Your task to perform on an android device: Go to Wikipedia Image 0: 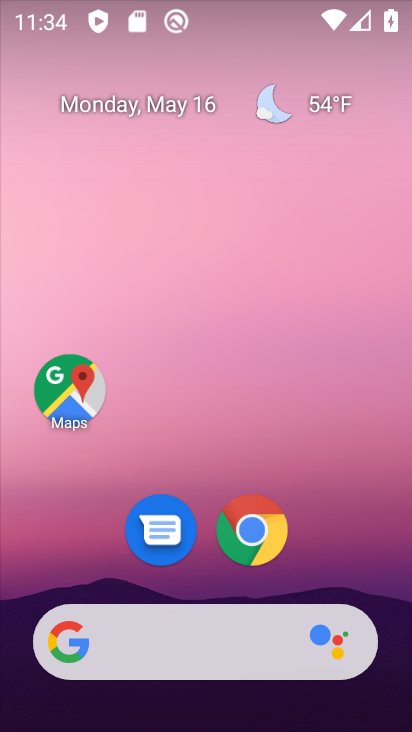
Step 0: drag from (359, 548) to (373, 131)
Your task to perform on an android device: Go to Wikipedia Image 1: 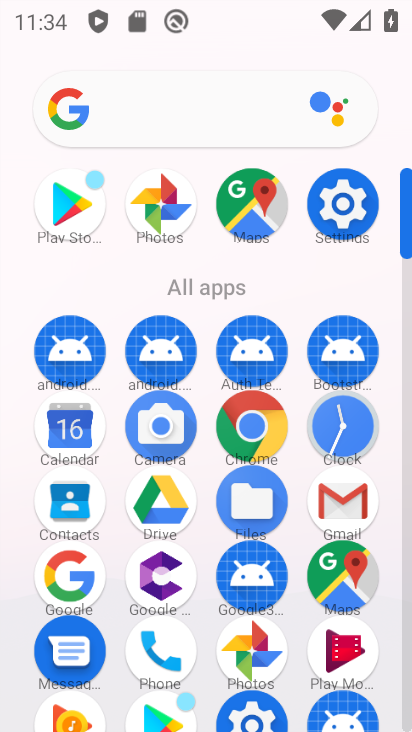
Step 1: click (278, 431)
Your task to perform on an android device: Go to Wikipedia Image 2: 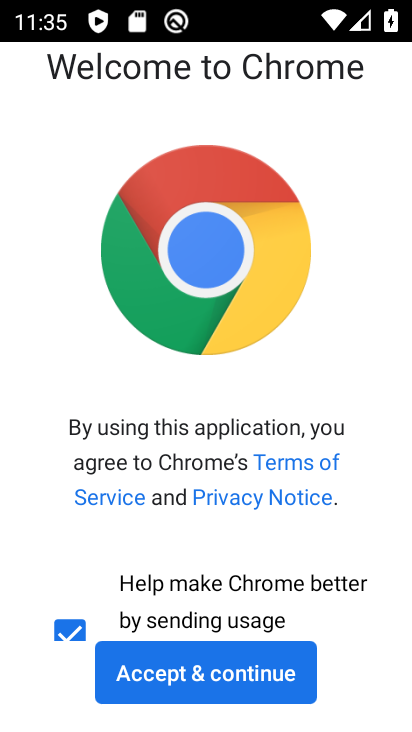
Step 2: click (269, 675)
Your task to perform on an android device: Go to Wikipedia Image 3: 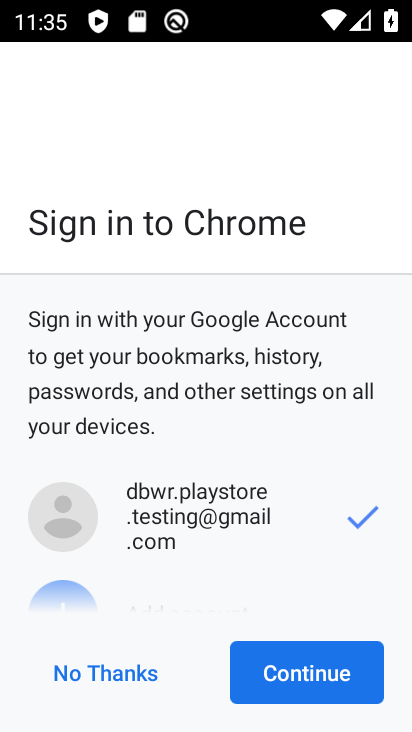
Step 3: click (267, 675)
Your task to perform on an android device: Go to Wikipedia Image 4: 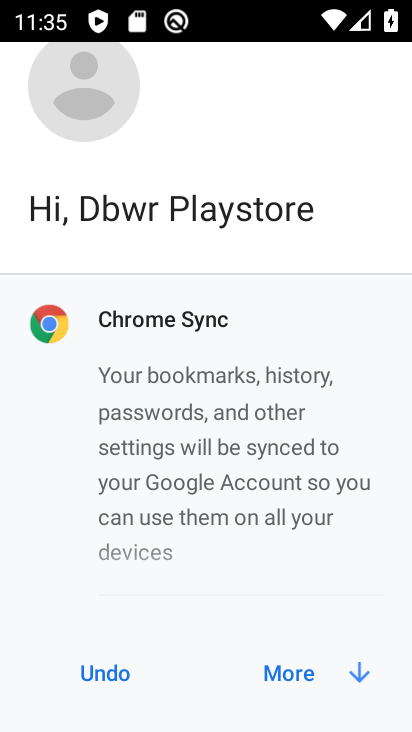
Step 4: click (267, 675)
Your task to perform on an android device: Go to Wikipedia Image 5: 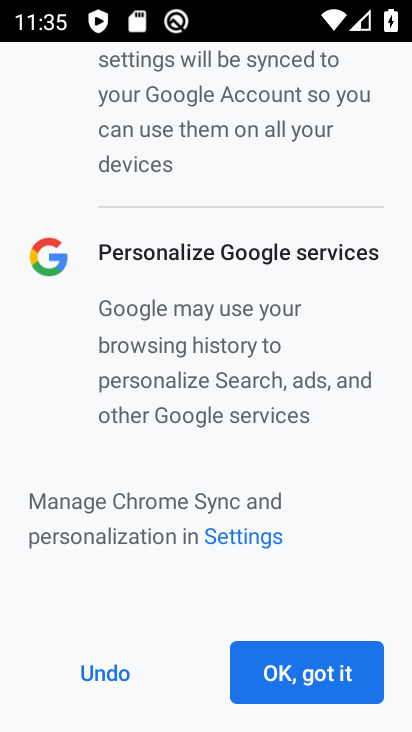
Step 5: click (264, 672)
Your task to perform on an android device: Go to Wikipedia Image 6: 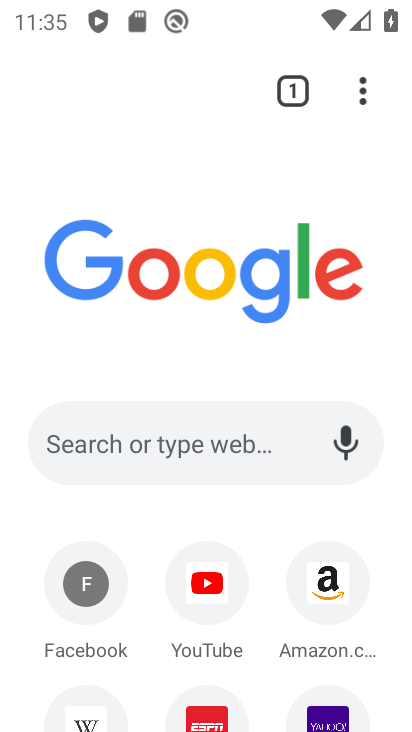
Step 6: drag from (154, 505) to (187, 328)
Your task to perform on an android device: Go to Wikipedia Image 7: 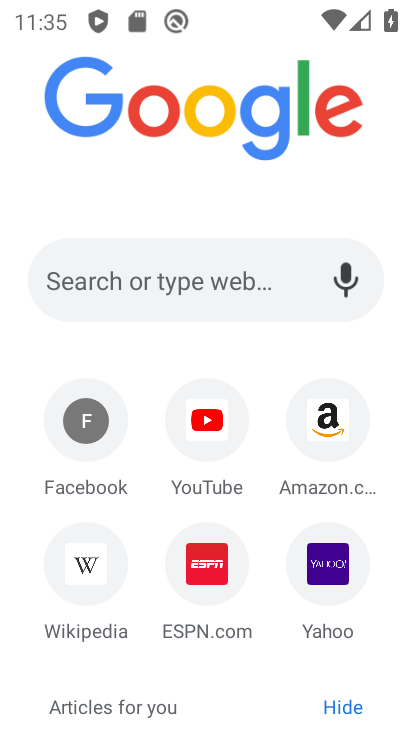
Step 7: click (91, 586)
Your task to perform on an android device: Go to Wikipedia Image 8: 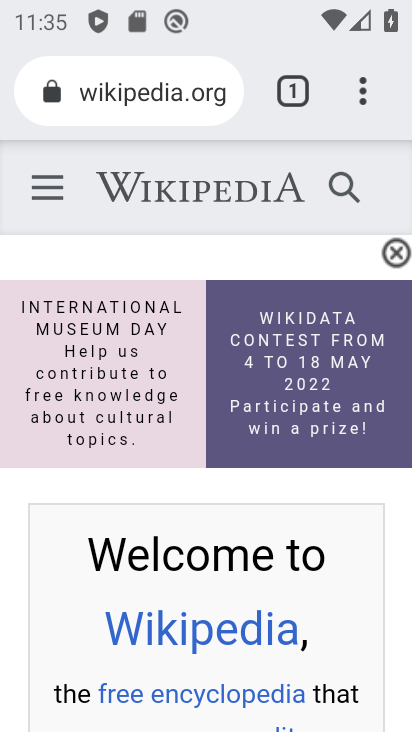
Step 8: task complete